Your task to perform on an android device: Open Amazon Image 0: 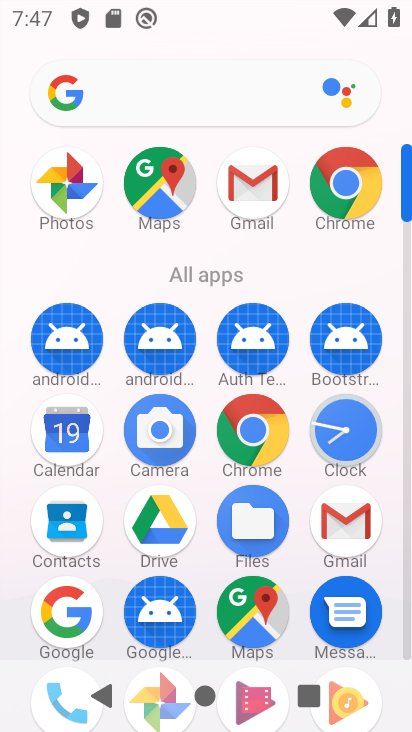
Step 0: press home button
Your task to perform on an android device: Open Amazon Image 1: 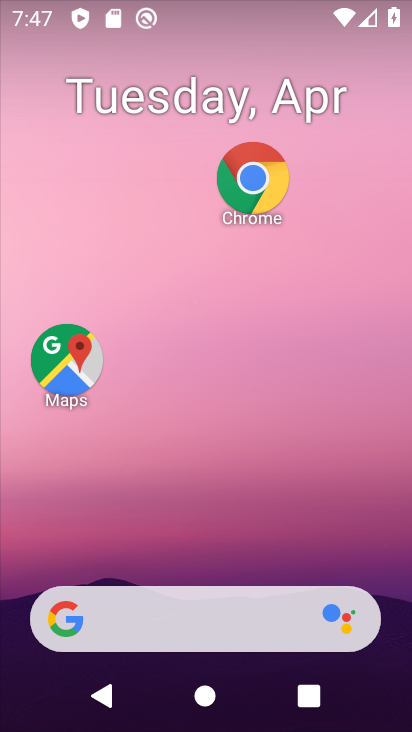
Step 1: click (254, 180)
Your task to perform on an android device: Open Amazon Image 2: 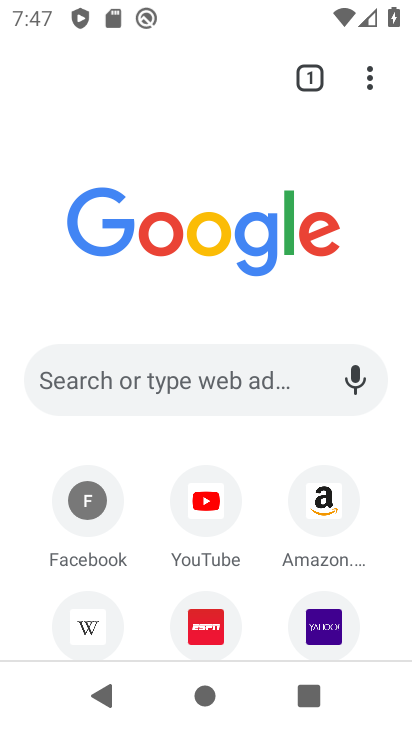
Step 2: click (327, 494)
Your task to perform on an android device: Open Amazon Image 3: 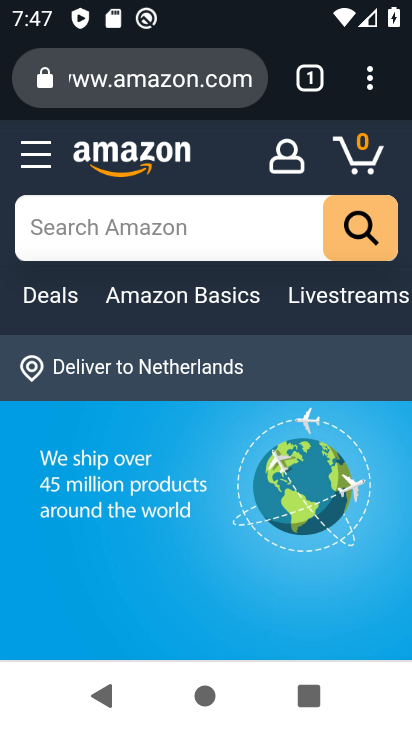
Step 3: task complete